Your task to perform on an android device: Search for nike dri-fit shirts on Nike Image 0: 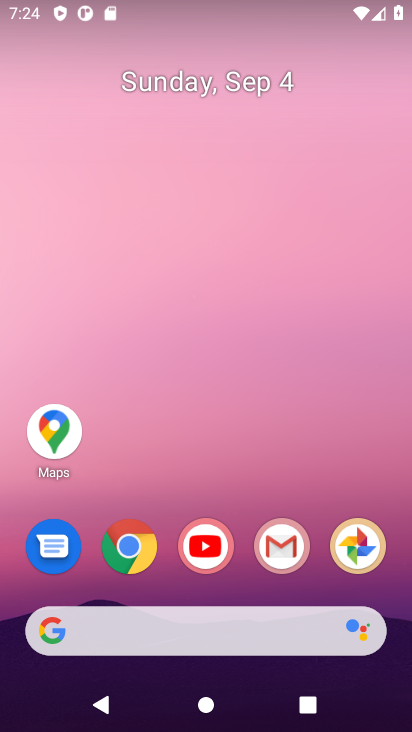
Step 0: click (122, 558)
Your task to perform on an android device: Search for nike dri-fit shirts on Nike Image 1: 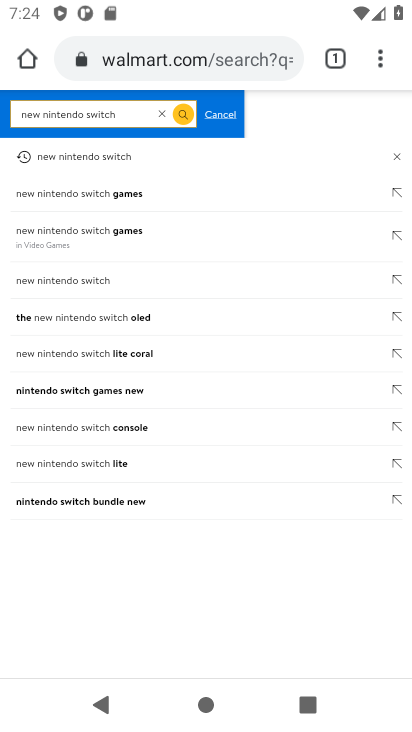
Step 1: click (272, 61)
Your task to perform on an android device: Search for nike dri-fit shirts on Nike Image 2: 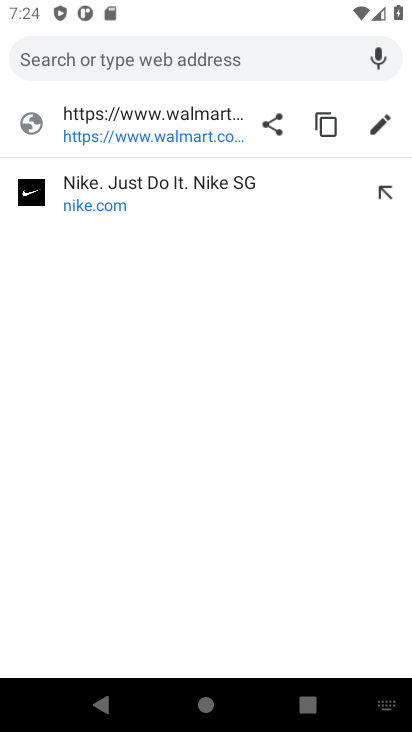
Step 2: type "nike"
Your task to perform on an android device: Search for nike dri-fit shirts on Nike Image 3: 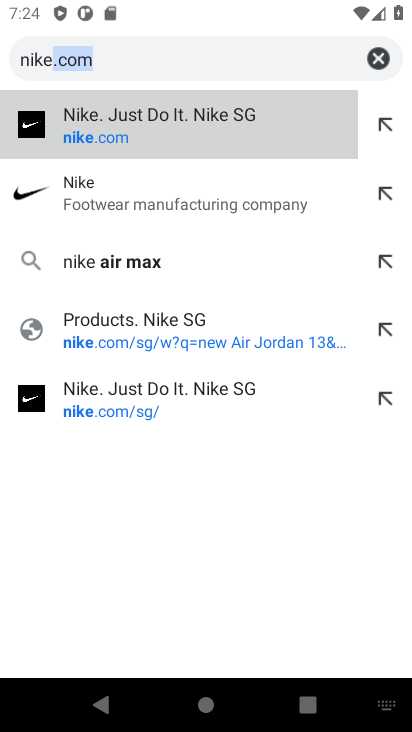
Step 3: click (54, 132)
Your task to perform on an android device: Search for nike dri-fit shirts on Nike Image 4: 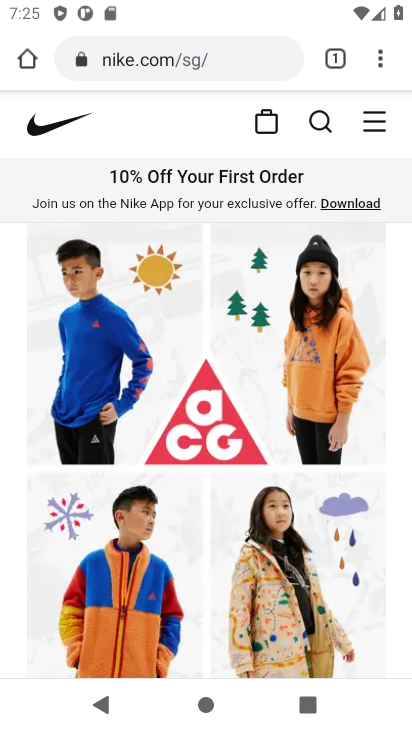
Step 4: click (324, 116)
Your task to perform on an android device: Search for nike dri-fit shirts on Nike Image 5: 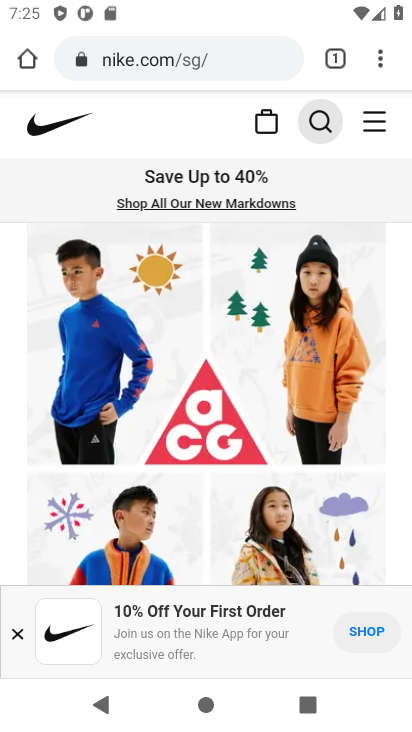
Step 5: click (321, 122)
Your task to perform on an android device: Search for nike dri-fit shirts on Nike Image 6: 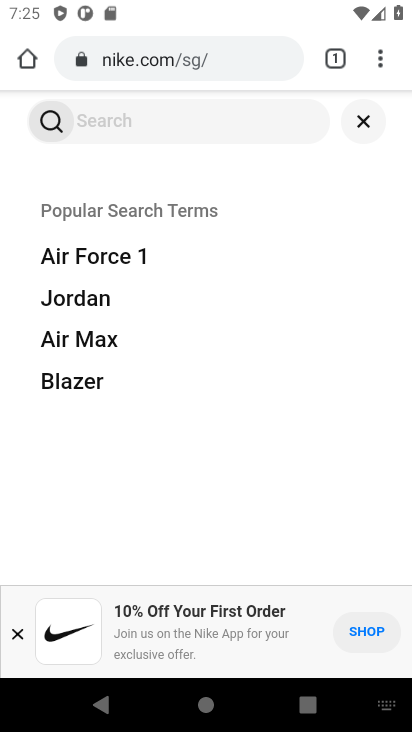
Step 6: type "nike dri-fit shirts"
Your task to perform on an android device: Search for nike dri-fit shirts on Nike Image 7: 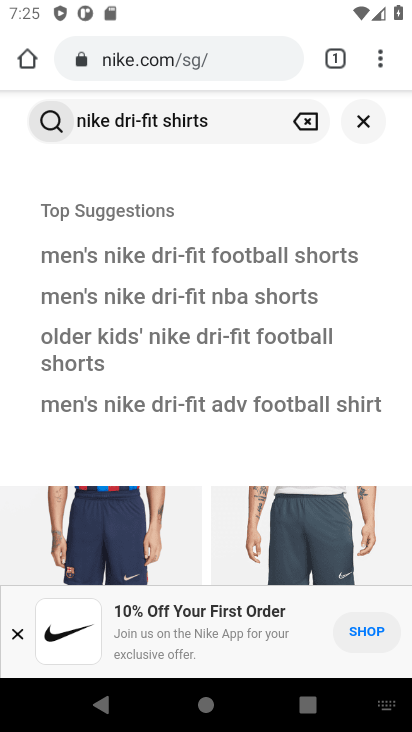
Step 7: drag from (266, 389) to (240, 207)
Your task to perform on an android device: Search for nike dri-fit shirts on Nike Image 8: 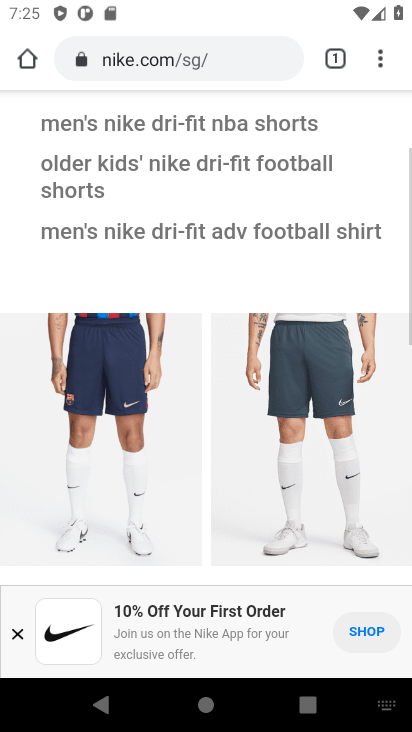
Step 8: drag from (229, 391) to (229, 180)
Your task to perform on an android device: Search for nike dri-fit shirts on Nike Image 9: 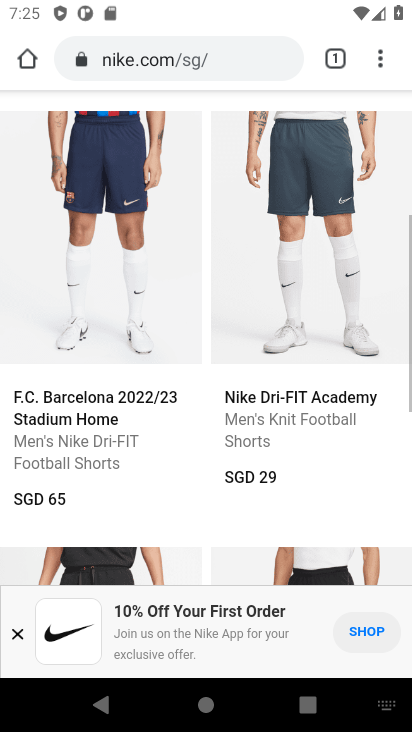
Step 9: drag from (208, 443) to (204, 204)
Your task to perform on an android device: Search for nike dri-fit shirts on Nike Image 10: 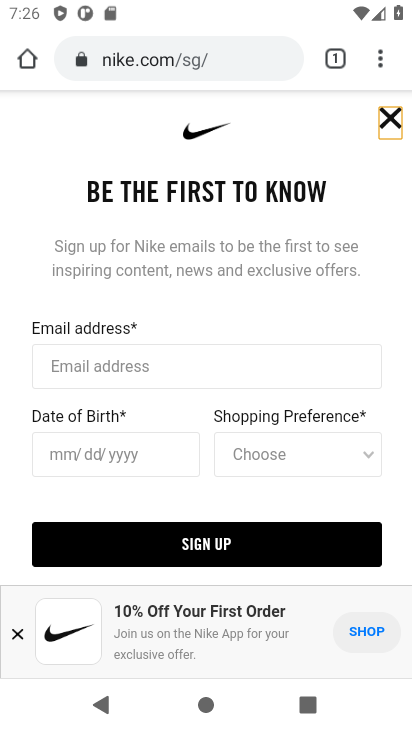
Step 10: click (393, 116)
Your task to perform on an android device: Search for nike dri-fit shirts on Nike Image 11: 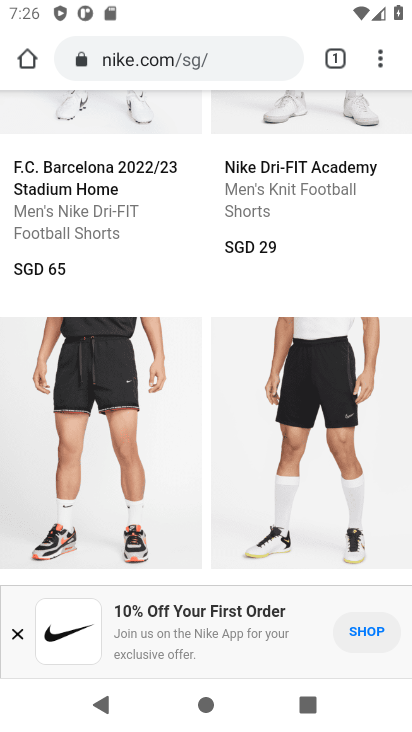
Step 11: task complete